Your task to perform on an android device: toggle pop-ups in chrome Image 0: 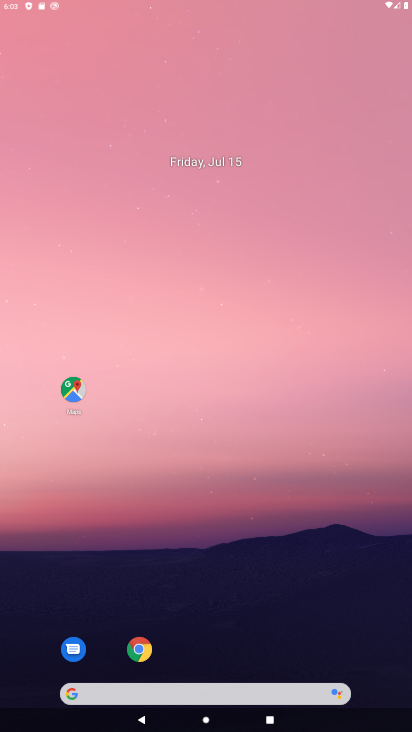
Step 0: press home button
Your task to perform on an android device: toggle pop-ups in chrome Image 1: 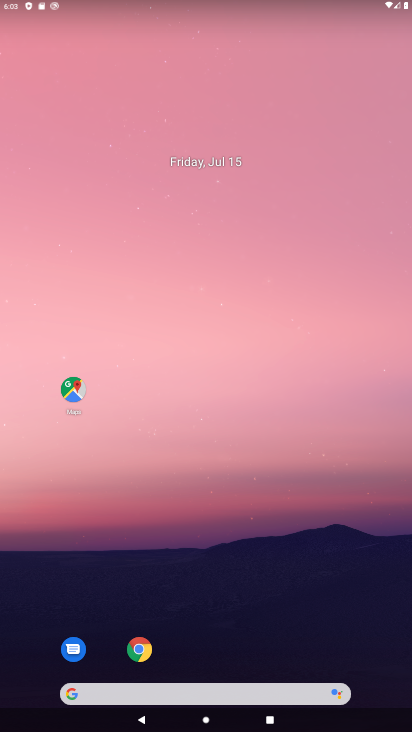
Step 1: drag from (232, 408) to (209, 23)
Your task to perform on an android device: toggle pop-ups in chrome Image 2: 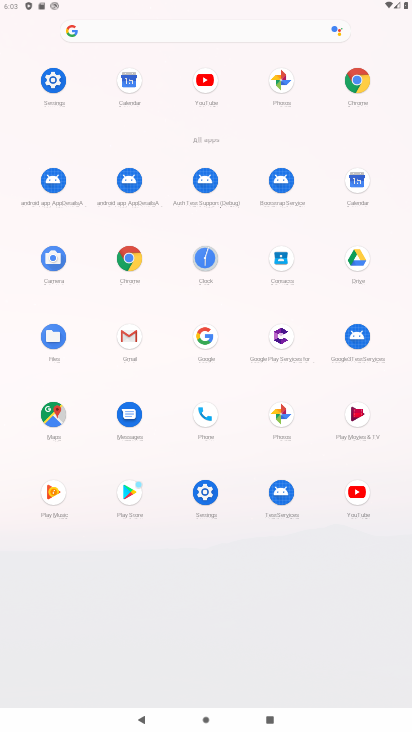
Step 2: click (354, 83)
Your task to perform on an android device: toggle pop-ups in chrome Image 3: 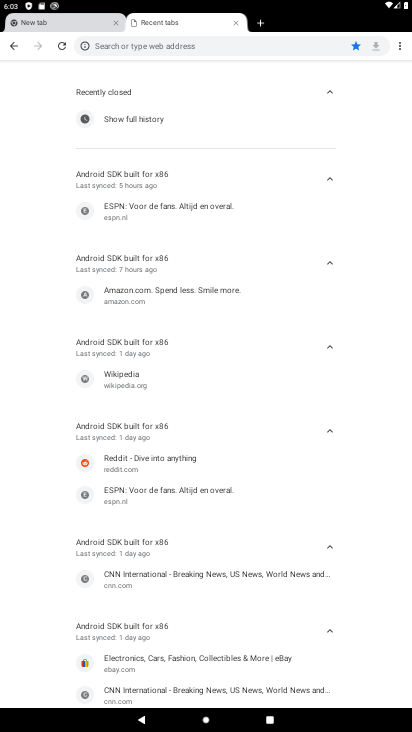
Step 3: drag from (402, 44) to (298, 214)
Your task to perform on an android device: toggle pop-ups in chrome Image 4: 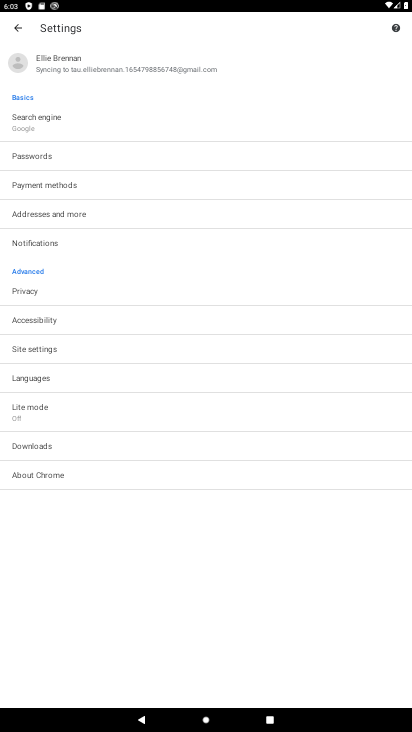
Step 4: click (26, 351)
Your task to perform on an android device: toggle pop-ups in chrome Image 5: 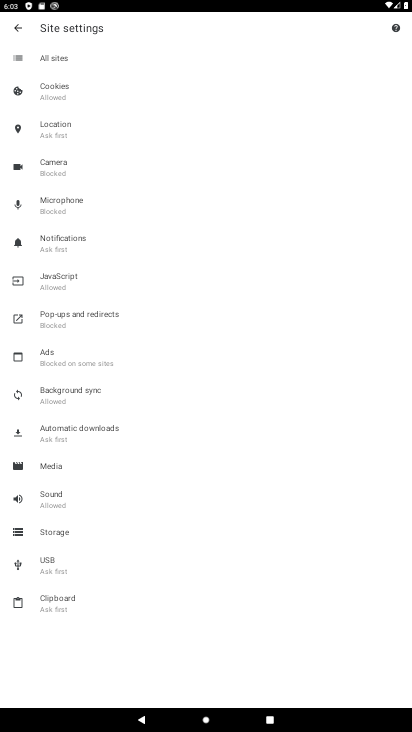
Step 5: click (78, 322)
Your task to perform on an android device: toggle pop-ups in chrome Image 6: 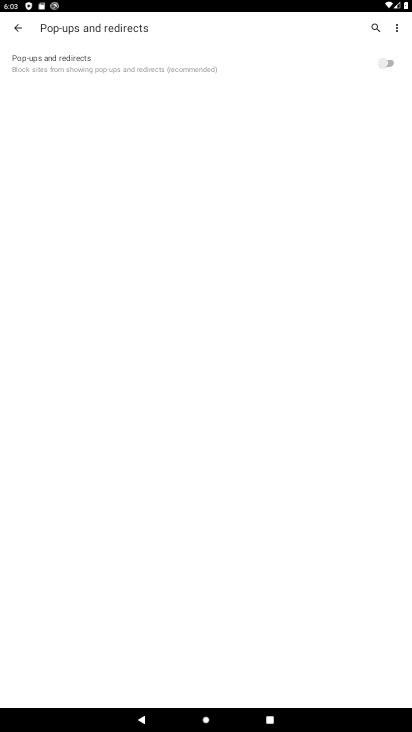
Step 6: click (387, 58)
Your task to perform on an android device: toggle pop-ups in chrome Image 7: 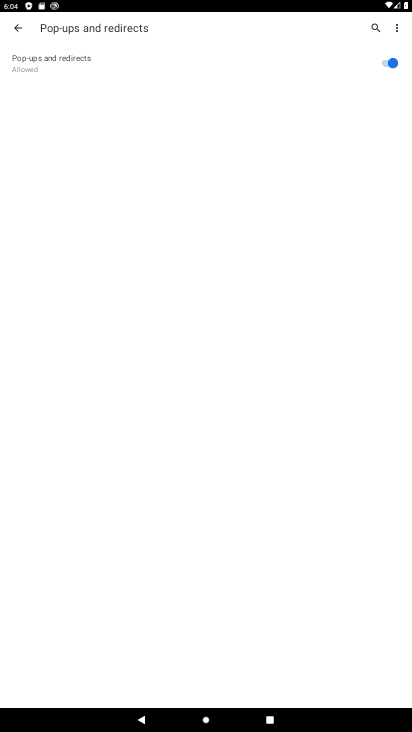
Step 7: task complete